Your task to perform on an android device: Open Google Image 0: 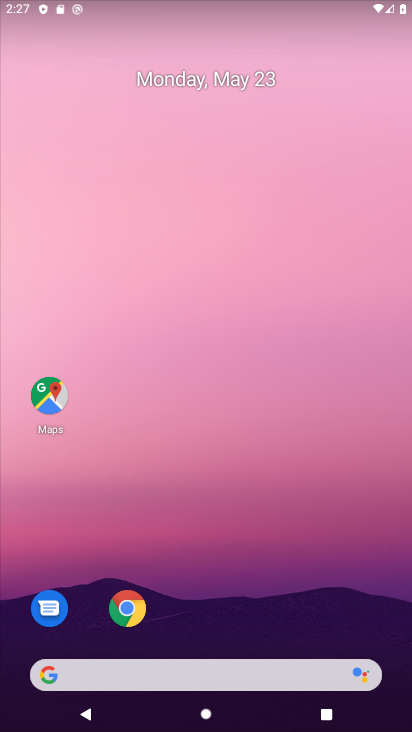
Step 0: click (295, 262)
Your task to perform on an android device: Open Google Image 1: 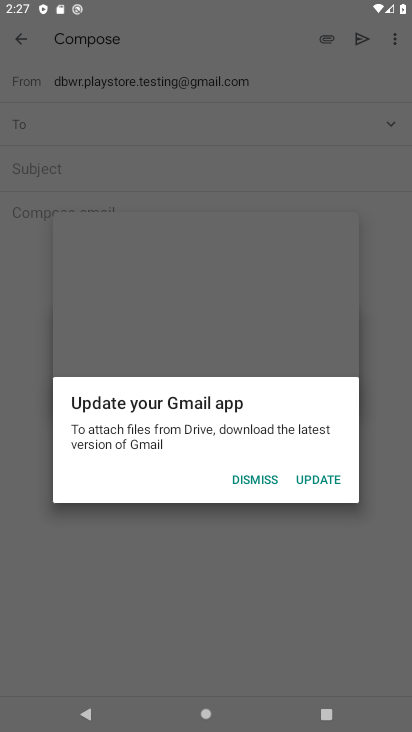
Step 1: click (330, 470)
Your task to perform on an android device: Open Google Image 2: 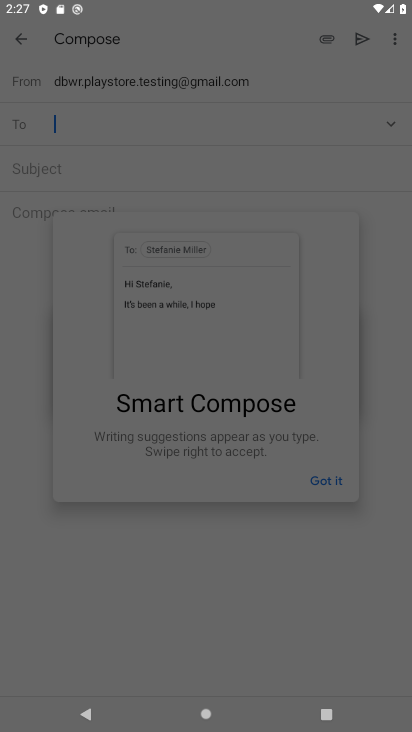
Step 2: press back button
Your task to perform on an android device: Open Google Image 3: 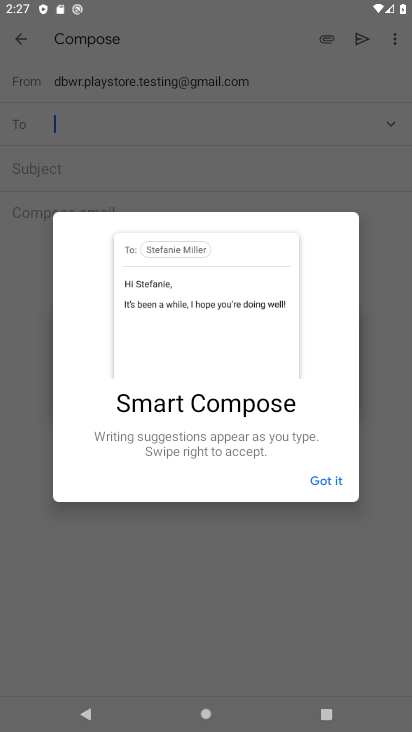
Step 3: press home button
Your task to perform on an android device: Open Google Image 4: 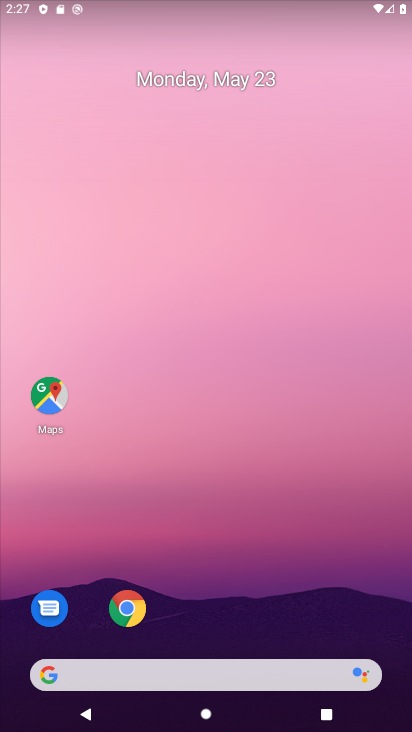
Step 4: drag from (278, 629) to (287, 368)
Your task to perform on an android device: Open Google Image 5: 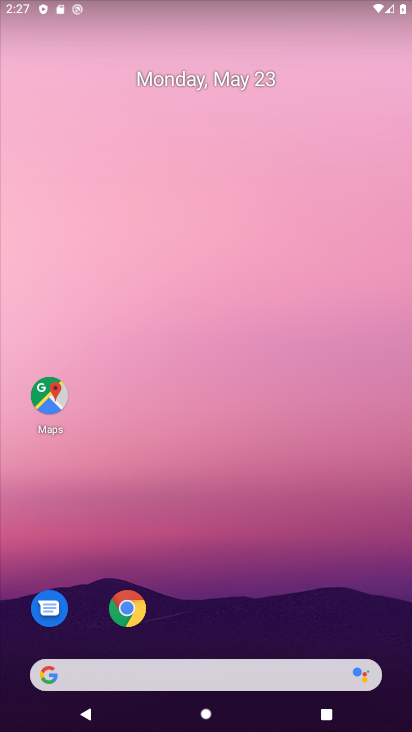
Step 5: drag from (233, 620) to (260, 326)
Your task to perform on an android device: Open Google Image 6: 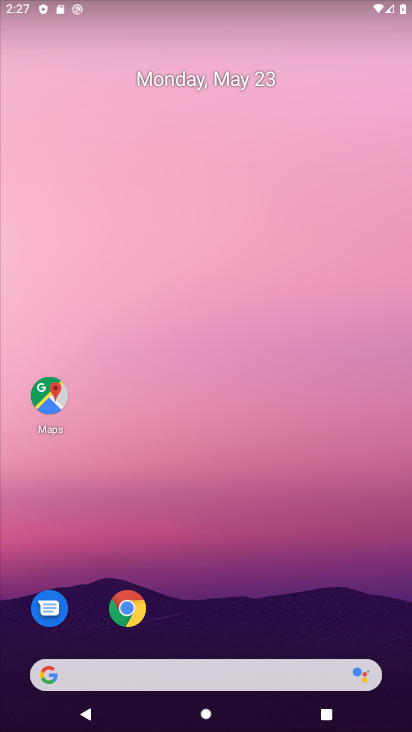
Step 6: drag from (173, 658) to (261, 369)
Your task to perform on an android device: Open Google Image 7: 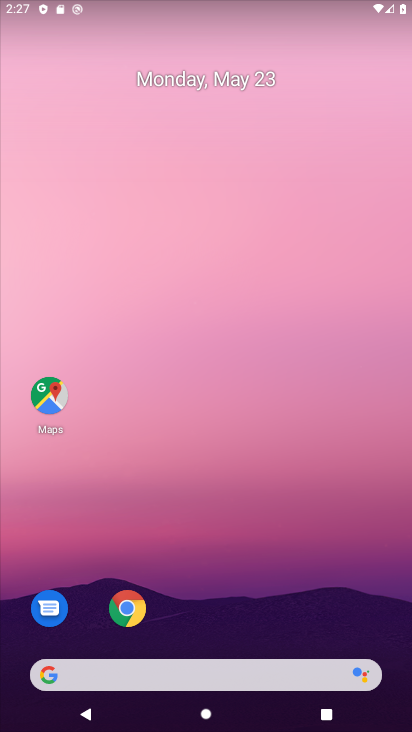
Step 7: drag from (238, 588) to (291, 182)
Your task to perform on an android device: Open Google Image 8: 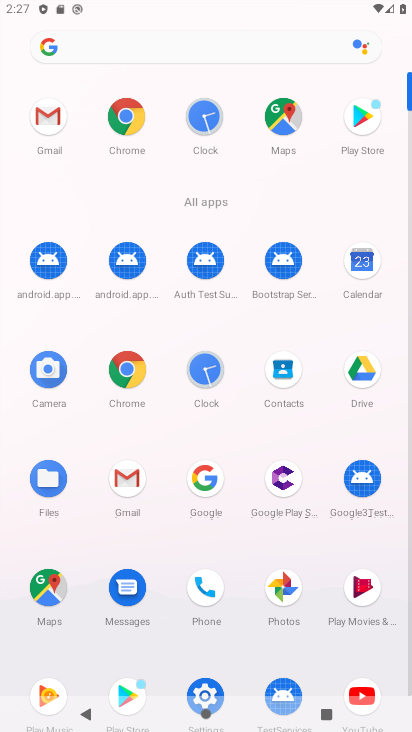
Step 8: click (198, 477)
Your task to perform on an android device: Open Google Image 9: 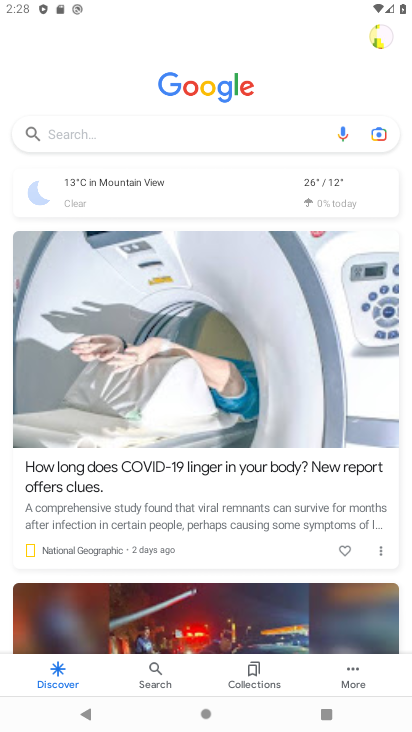
Step 9: task complete